Your task to perform on an android device: delete location history Image 0: 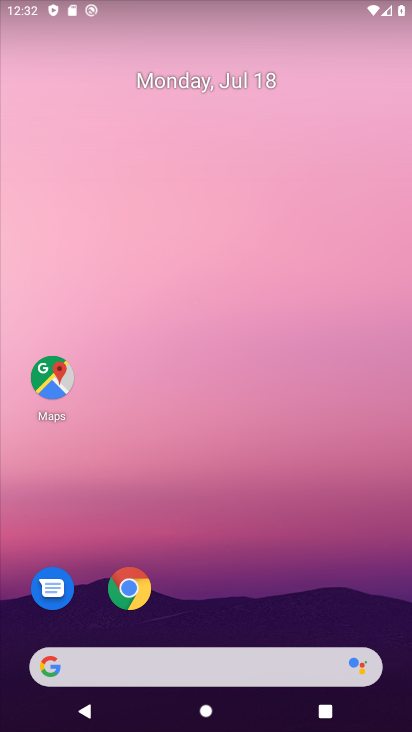
Step 0: click (52, 384)
Your task to perform on an android device: delete location history Image 1: 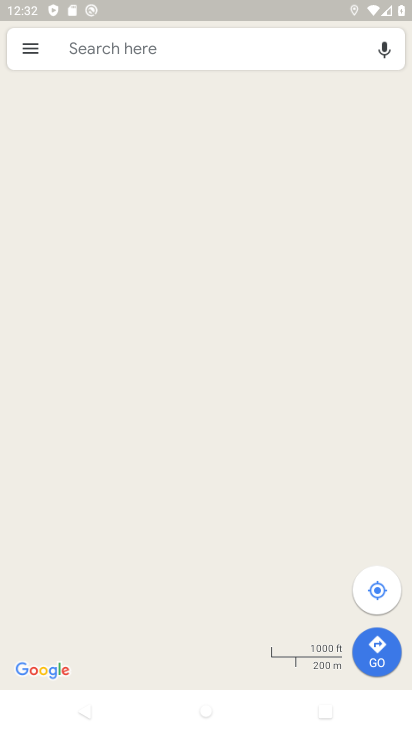
Step 1: click (27, 39)
Your task to perform on an android device: delete location history Image 2: 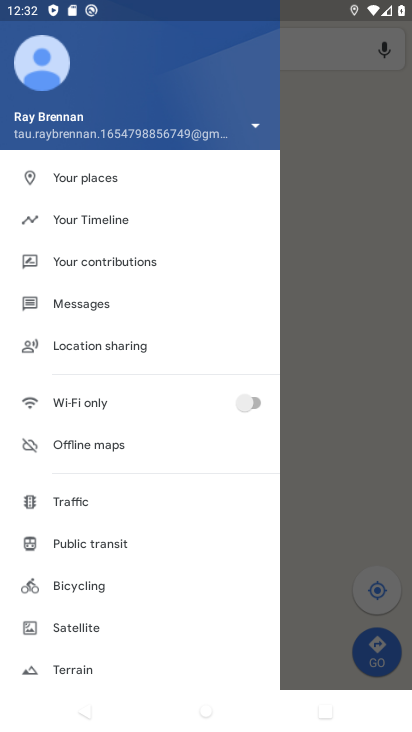
Step 2: click (144, 217)
Your task to perform on an android device: delete location history Image 3: 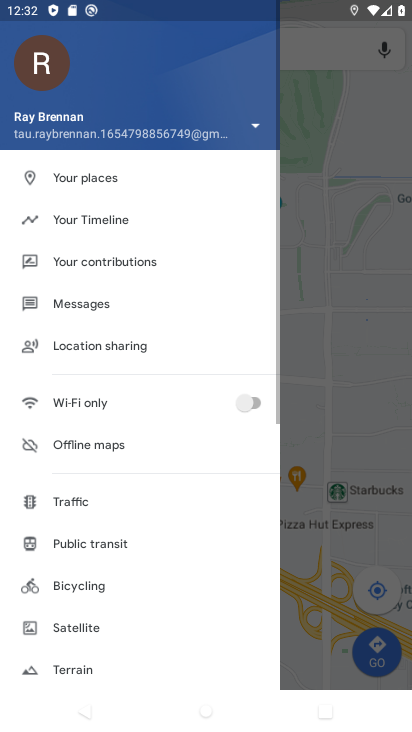
Step 3: click (119, 217)
Your task to perform on an android device: delete location history Image 4: 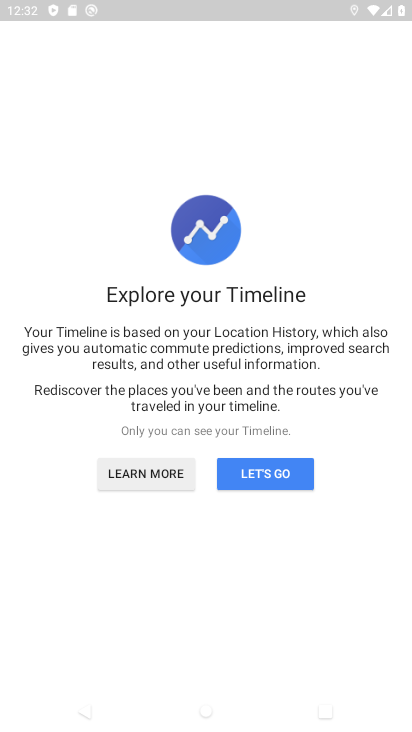
Step 4: click (284, 471)
Your task to perform on an android device: delete location history Image 5: 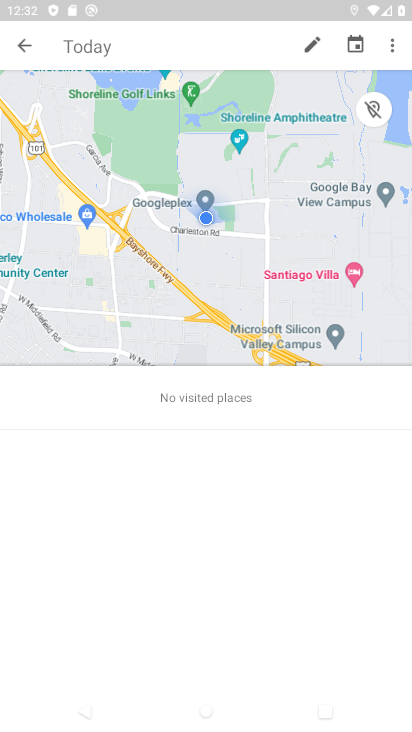
Step 5: click (392, 51)
Your task to perform on an android device: delete location history Image 6: 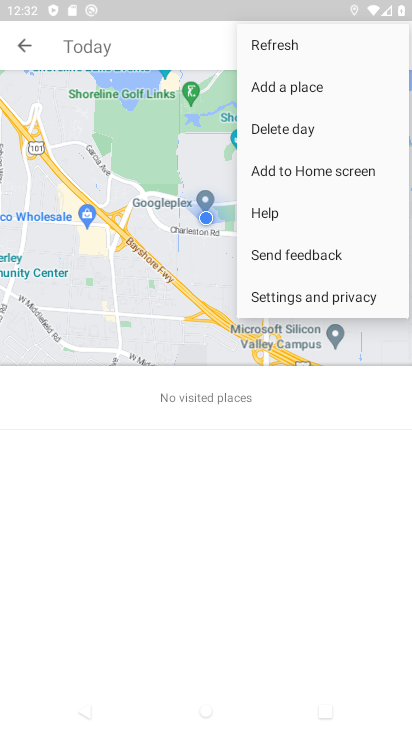
Step 6: click (293, 296)
Your task to perform on an android device: delete location history Image 7: 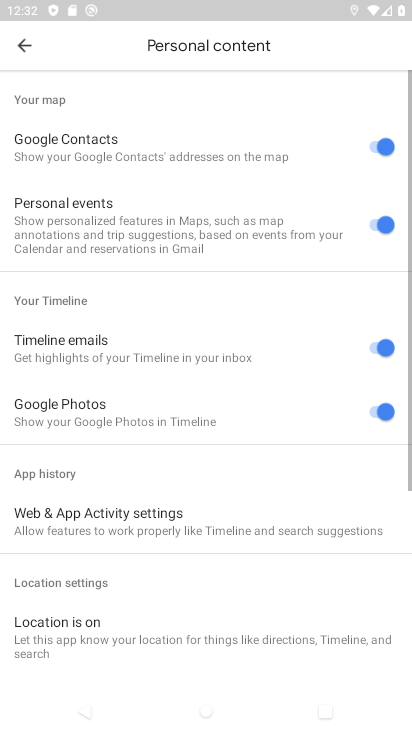
Step 7: drag from (152, 606) to (153, 151)
Your task to perform on an android device: delete location history Image 8: 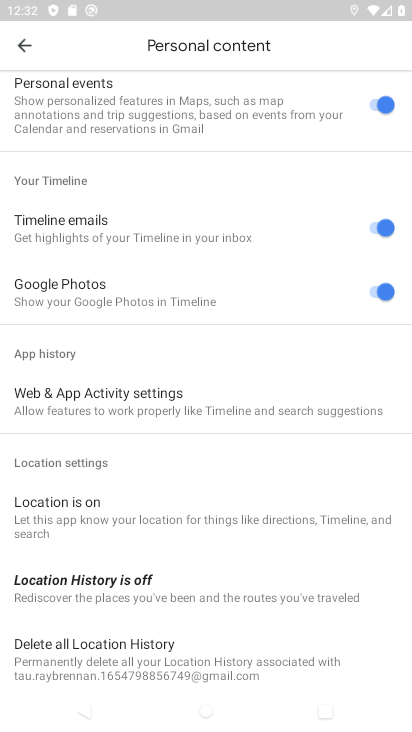
Step 8: click (158, 638)
Your task to perform on an android device: delete location history Image 9: 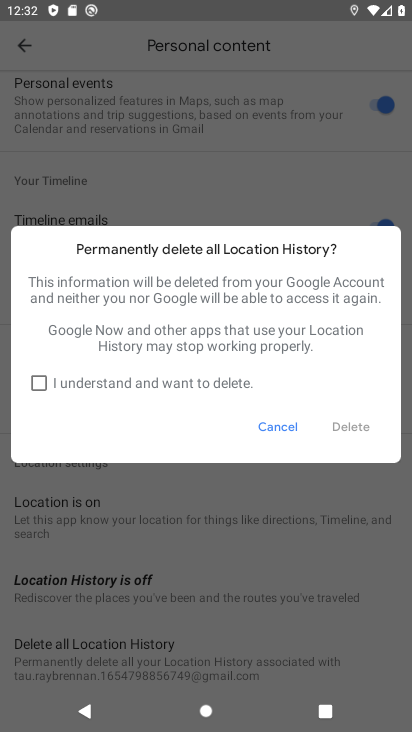
Step 9: click (21, 387)
Your task to perform on an android device: delete location history Image 10: 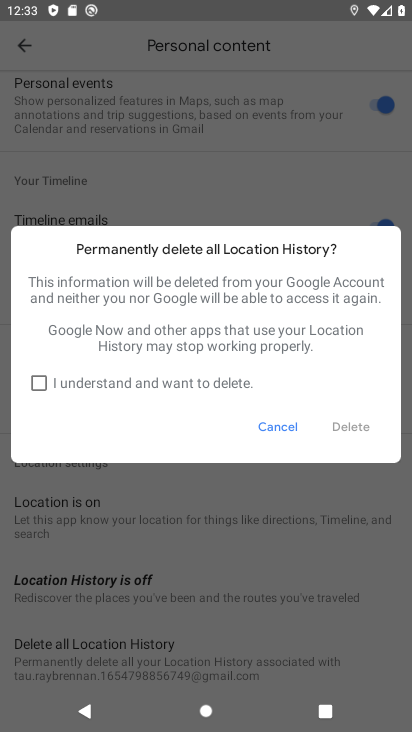
Step 10: click (32, 386)
Your task to perform on an android device: delete location history Image 11: 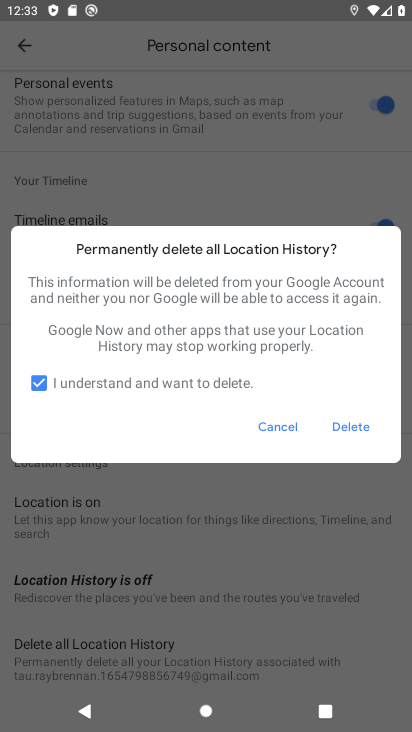
Step 11: click (342, 417)
Your task to perform on an android device: delete location history Image 12: 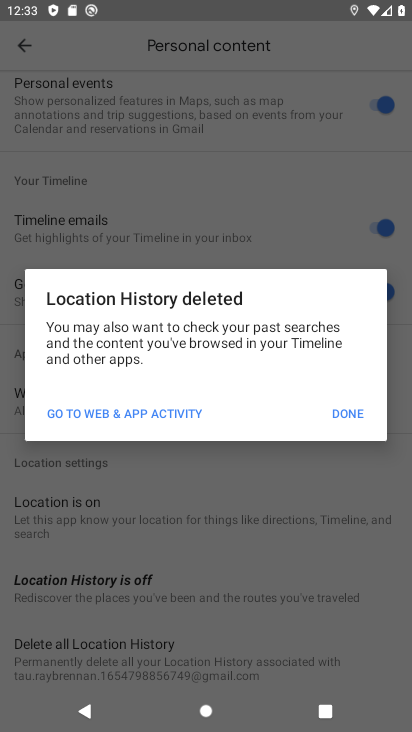
Step 12: task complete